Your task to perform on an android device: make emails show in primary in the gmail app Image 0: 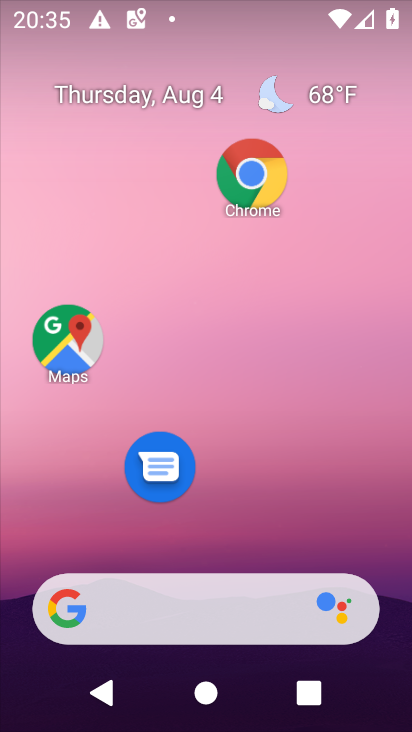
Step 0: press home button
Your task to perform on an android device: make emails show in primary in the gmail app Image 1: 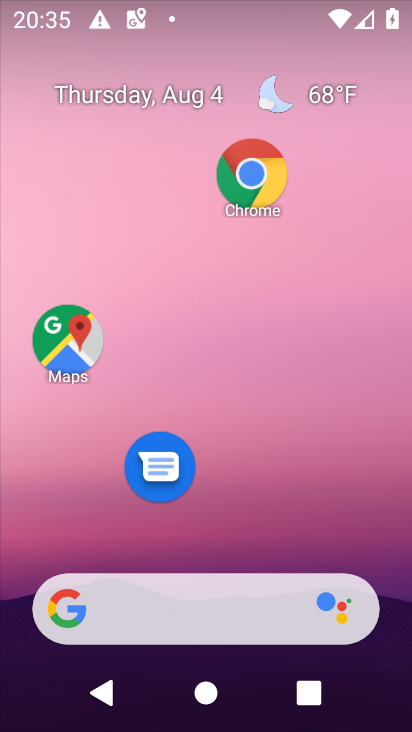
Step 1: drag from (221, 525) to (244, 50)
Your task to perform on an android device: make emails show in primary in the gmail app Image 2: 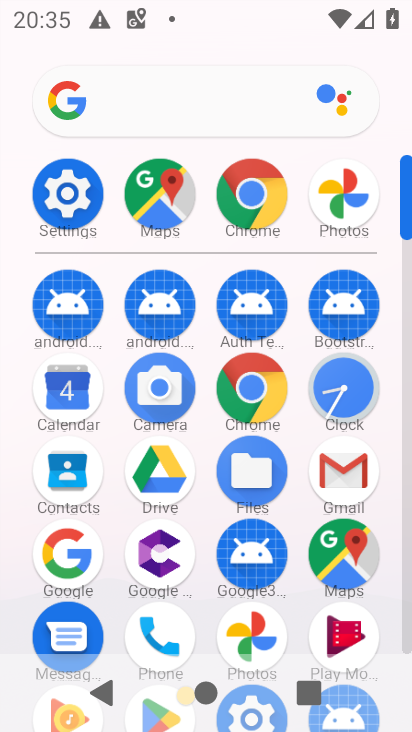
Step 2: click (327, 462)
Your task to perform on an android device: make emails show in primary in the gmail app Image 3: 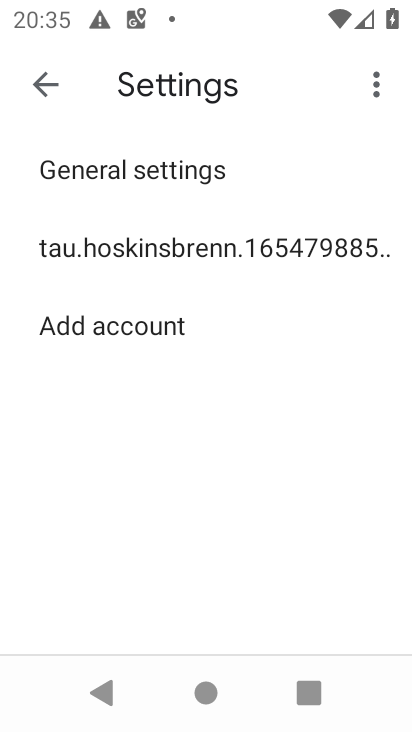
Step 3: click (212, 239)
Your task to perform on an android device: make emails show in primary in the gmail app Image 4: 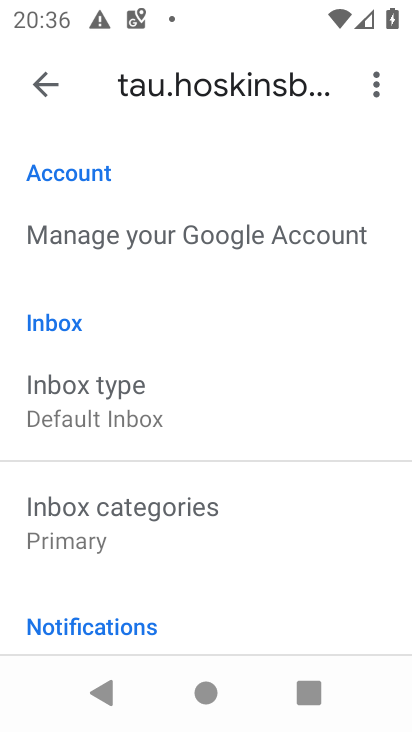
Step 4: click (38, 75)
Your task to perform on an android device: make emails show in primary in the gmail app Image 5: 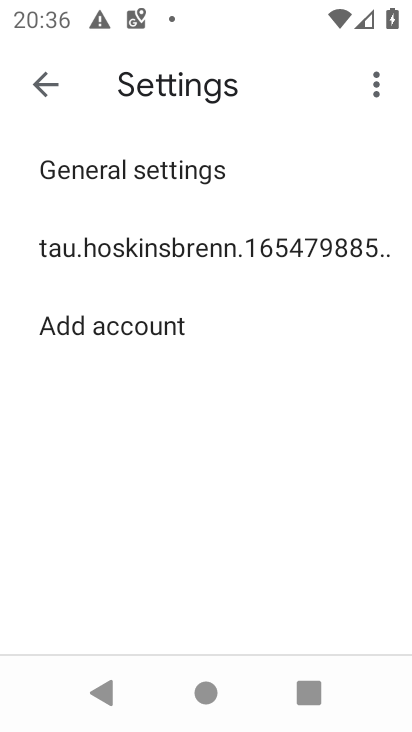
Step 5: click (38, 75)
Your task to perform on an android device: make emails show in primary in the gmail app Image 6: 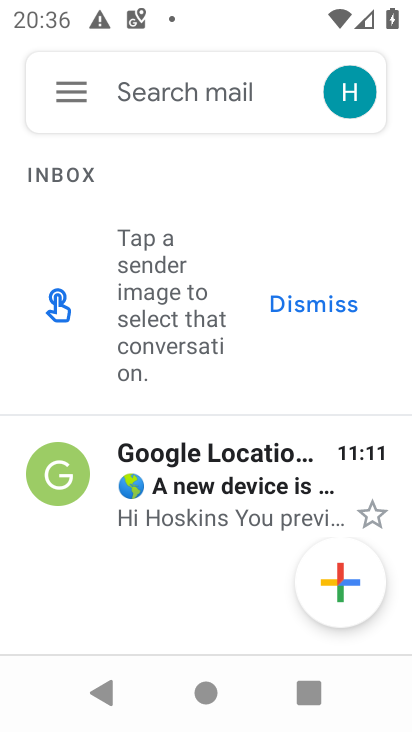
Step 6: click (60, 79)
Your task to perform on an android device: make emails show in primary in the gmail app Image 7: 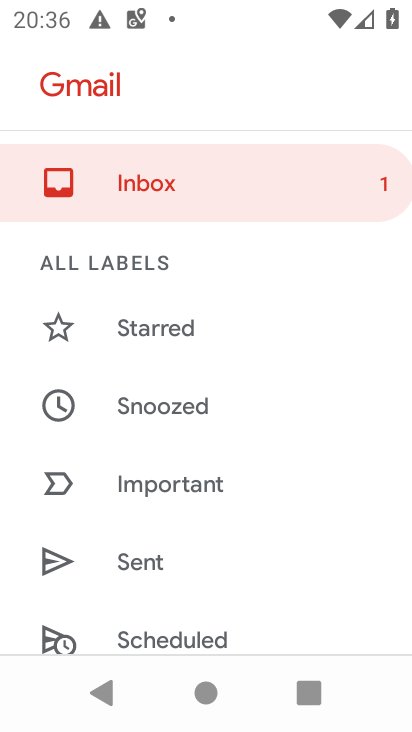
Step 7: task complete